Your task to perform on an android device: Open accessibility settings Image 0: 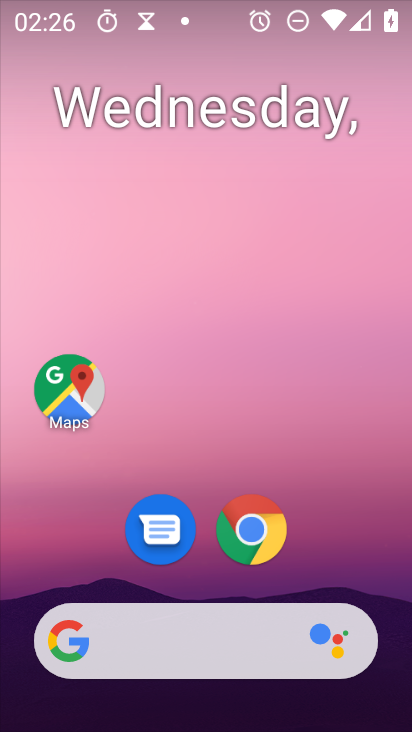
Step 0: drag from (336, 634) to (336, 49)
Your task to perform on an android device: Open accessibility settings Image 1: 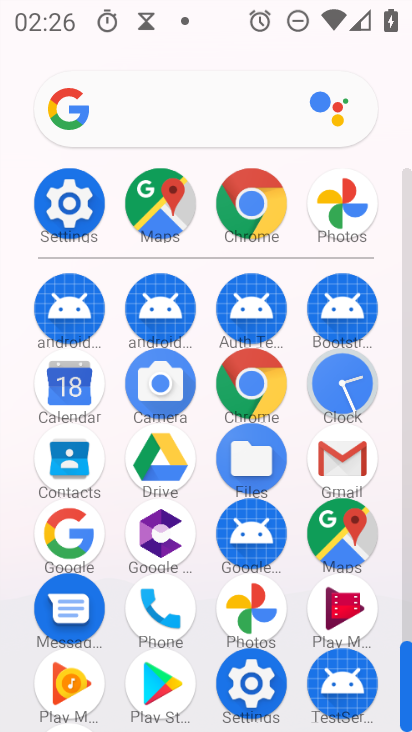
Step 1: click (88, 217)
Your task to perform on an android device: Open accessibility settings Image 2: 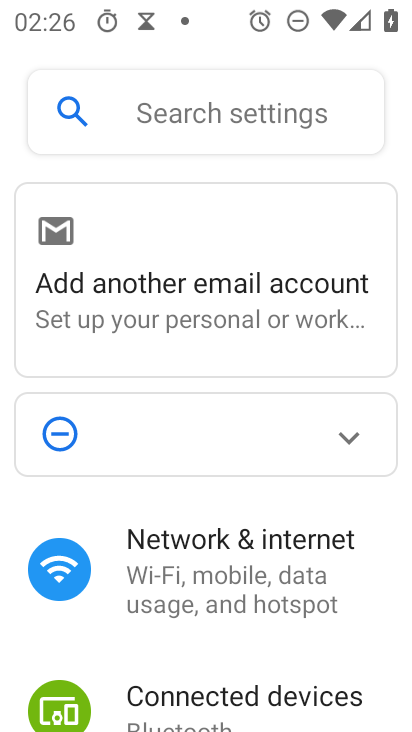
Step 2: drag from (275, 659) to (294, 40)
Your task to perform on an android device: Open accessibility settings Image 3: 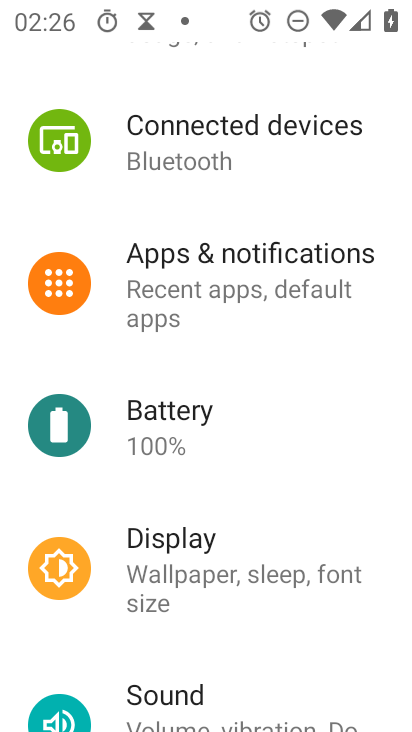
Step 3: drag from (260, 657) to (294, 35)
Your task to perform on an android device: Open accessibility settings Image 4: 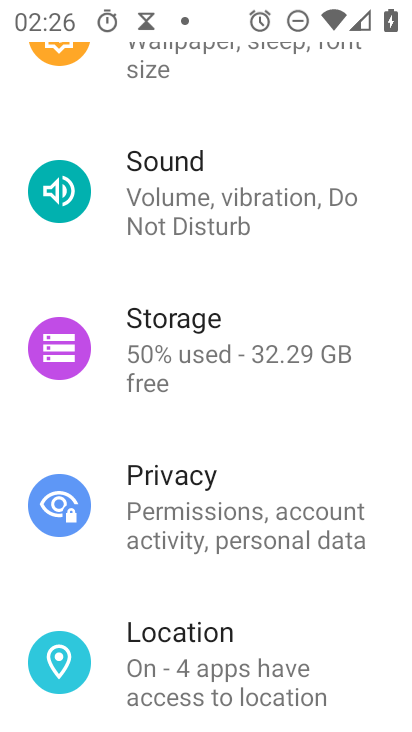
Step 4: drag from (309, 680) to (317, 120)
Your task to perform on an android device: Open accessibility settings Image 5: 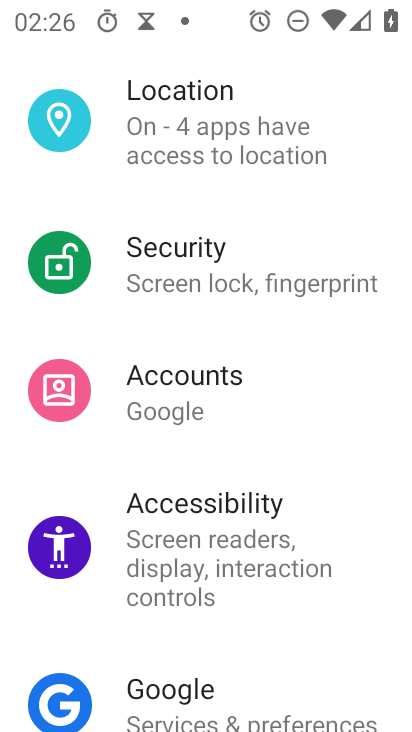
Step 5: drag from (275, 602) to (291, 326)
Your task to perform on an android device: Open accessibility settings Image 6: 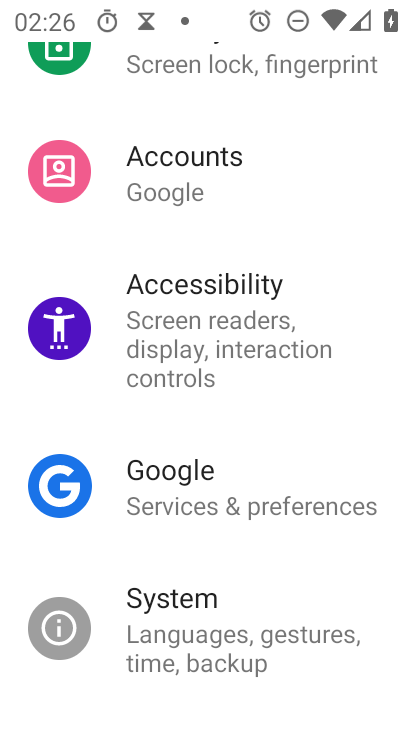
Step 6: click (239, 314)
Your task to perform on an android device: Open accessibility settings Image 7: 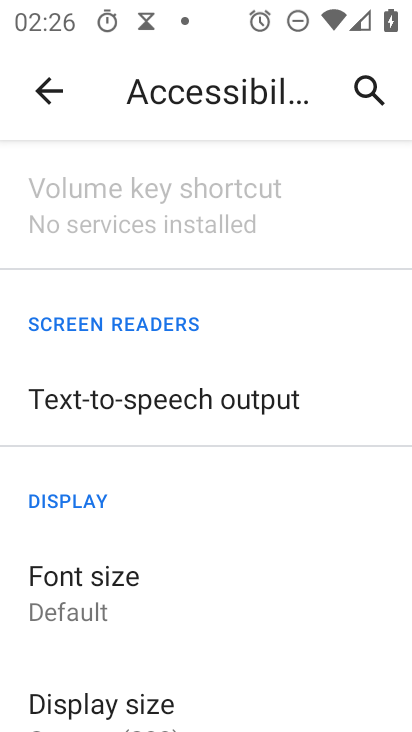
Step 7: task complete